Your task to perform on an android device: turn on bluetooth scan Image 0: 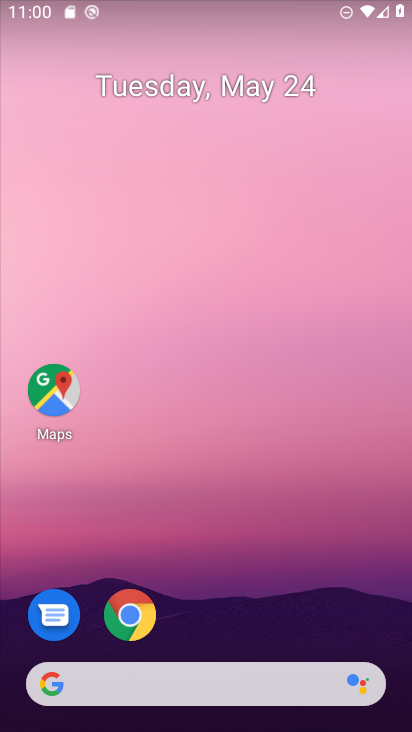
Step 0: press home button
Your task to perform on an android device: turn on bluetooth scan Image 1: 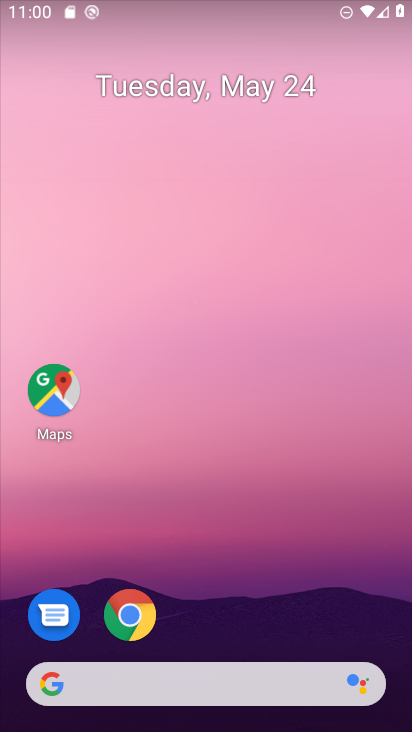
Step 1: drag from (277, 702) to (364, 74)
Your task to perform on an android device: turn on bluetooth scan Image 2: 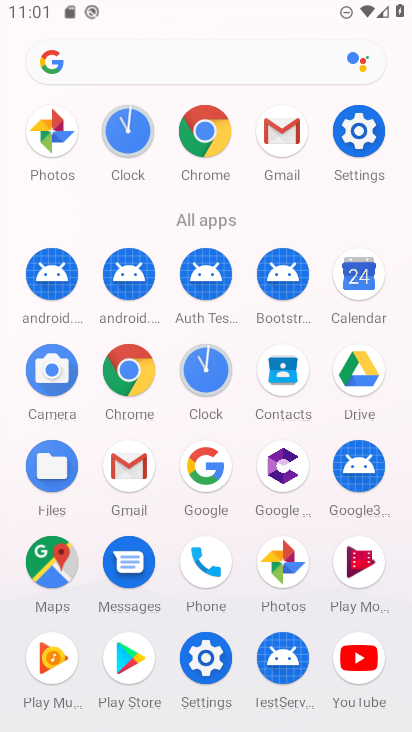
Step 2: click (372, 138)
Your task to perform on an android device: turn on bluetooth scan Image 3: 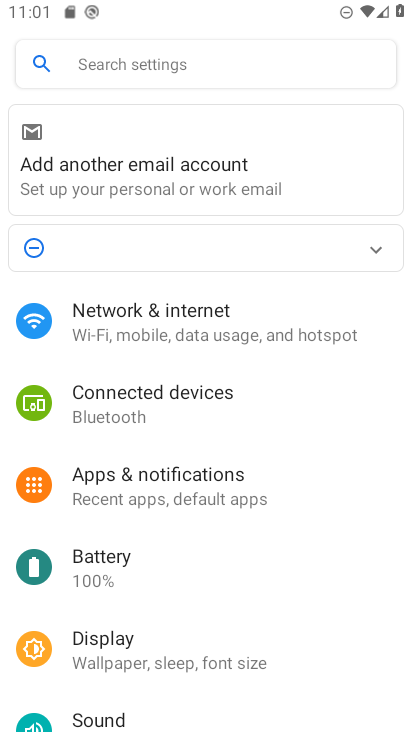
Step 3: click (172, 67)
Your task to perform on an android device: turn on bluetooth scan Image 4: 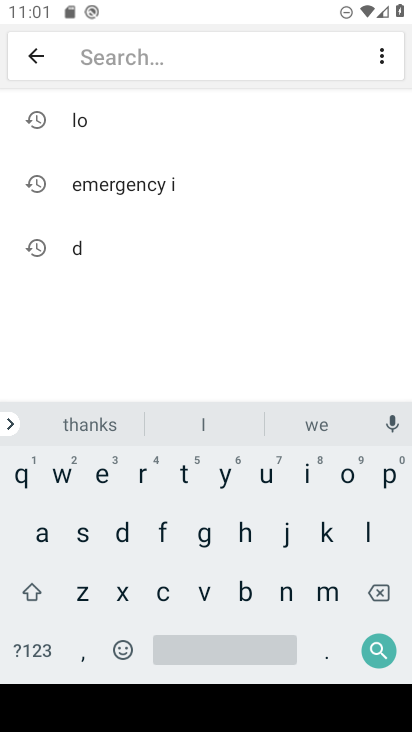
Step 4: click (103, 126)
Your task to perform on an android device: turn on bluetooth scan Image 5: 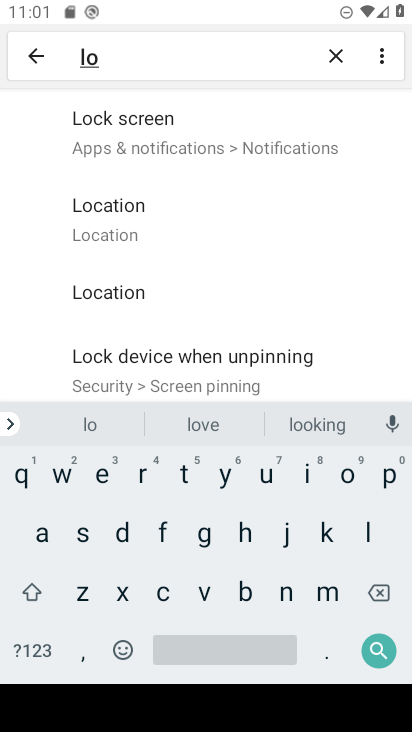
Step 5: click (138, 224)
Your task to perform on an android device: turn on bluetooth scan Image 6: 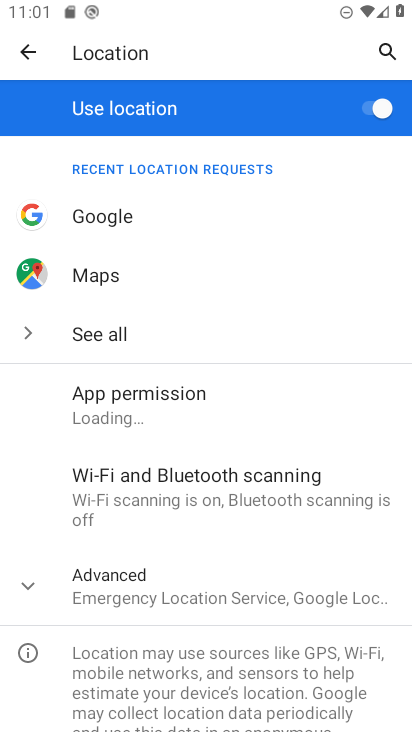
Step 6: click (68, 577)
Your task to perform on an android device: turn on bluetooth scan Image 7: 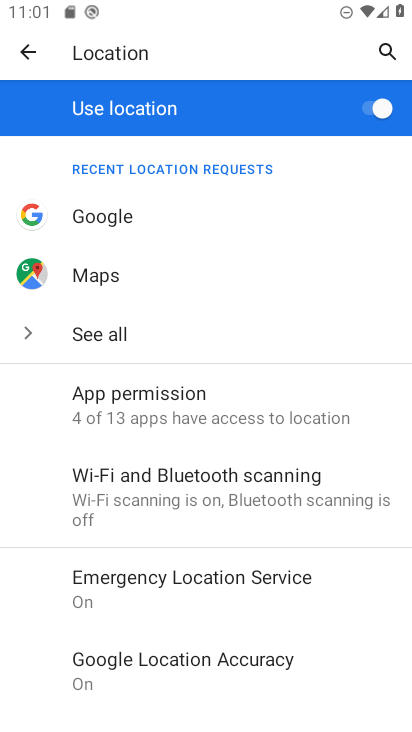
Step 7: click (223, 495)
Your task to perform on an android device: turn on bluetooth scan Image 8: 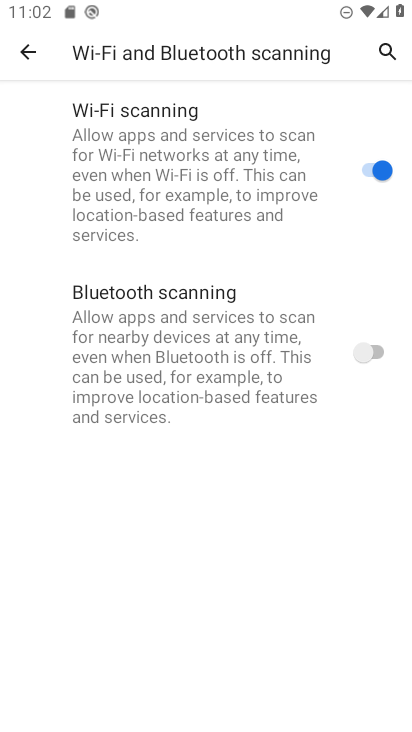
Step 8: click (373, 351)
Your task to perform on an android device: turn on bluetooth scan Image 9: 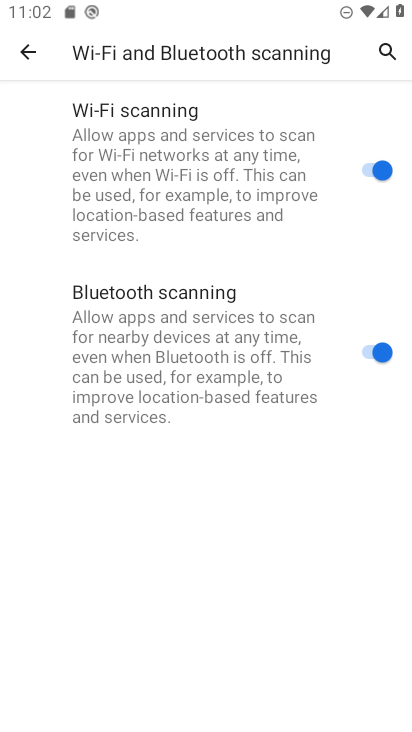
Step 9: task complete